Your task to perform on an android device: Go to accessibility settings Image 0: 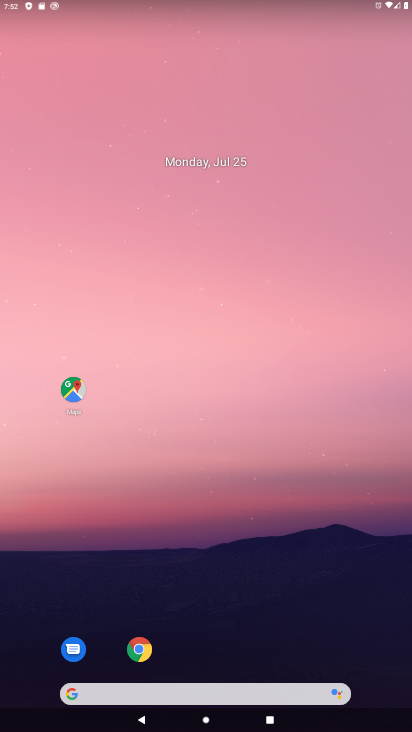
Step 0: drag from (392, 678) to (333, 219)
Your task to perform on an android device: Go to accessibility settings Image 1: 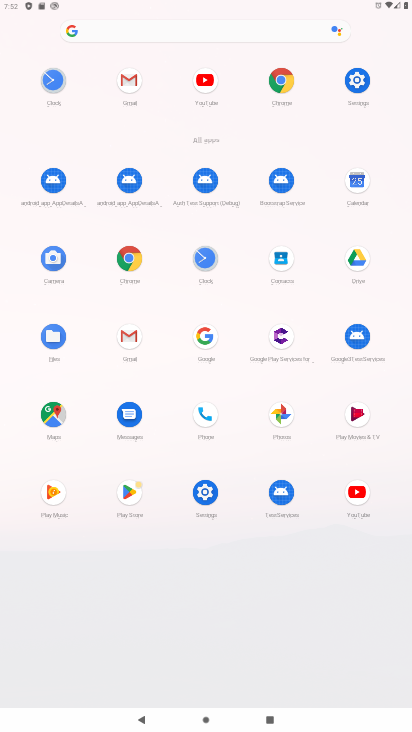
Step 1: click (207, 493)
Your task to perform on an android device: Go to accessibility settings Image 2: 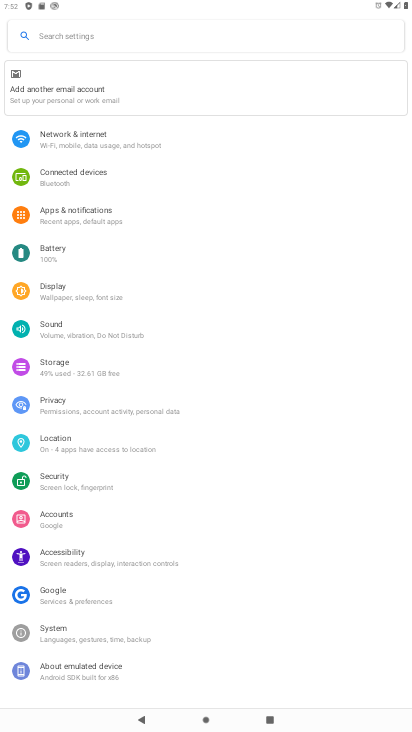
Step 2: click (56, 553)
Your task to perform on an android device: Go to accessibility settings Image 3: 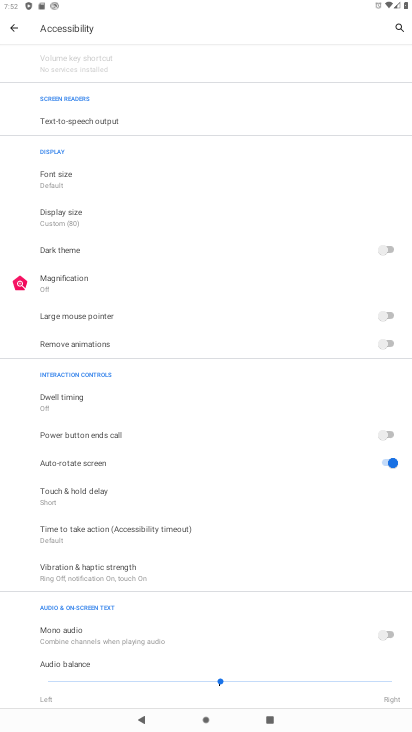
Step 3: task complete